Your task to perform on an android device: change timer sound Image 0: 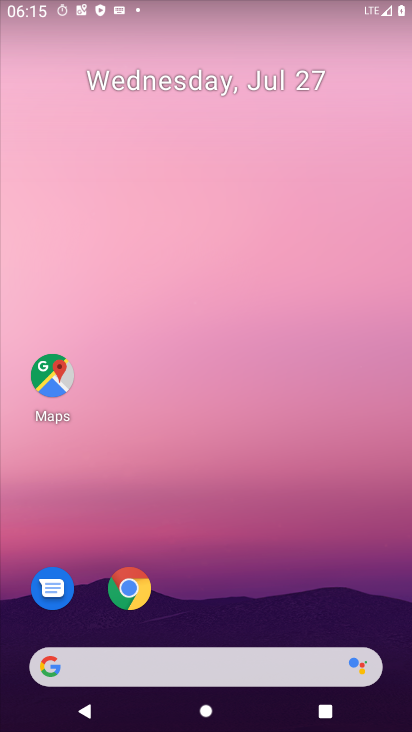
Step 0: drag from (217, 665) to (263, 47)
Your task to perform on an android device: change timer sound Image 1: 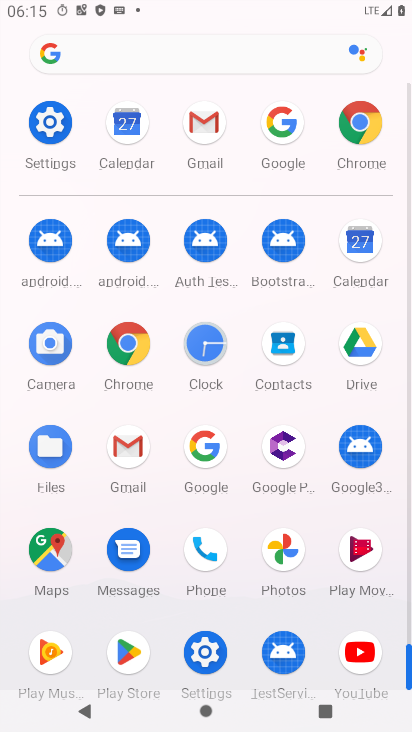
Step 1: click (214, 343)
Your task to perform on an android device: change timer sound Image 2: 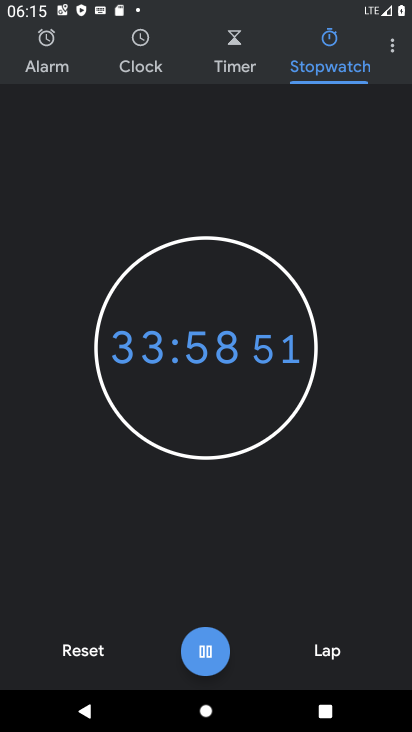
Step 2: click (390, 47)
Your task to perform on an android device: change timer sound Image 3: 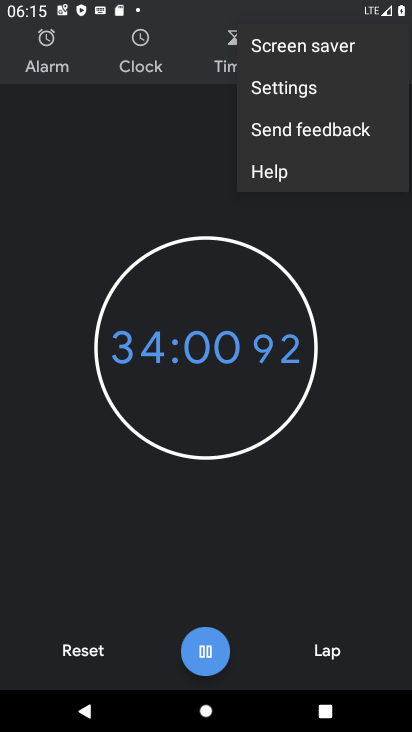
Step 3: click (310, 90)
Your task to perform on an android device: change timer sound Image 4: 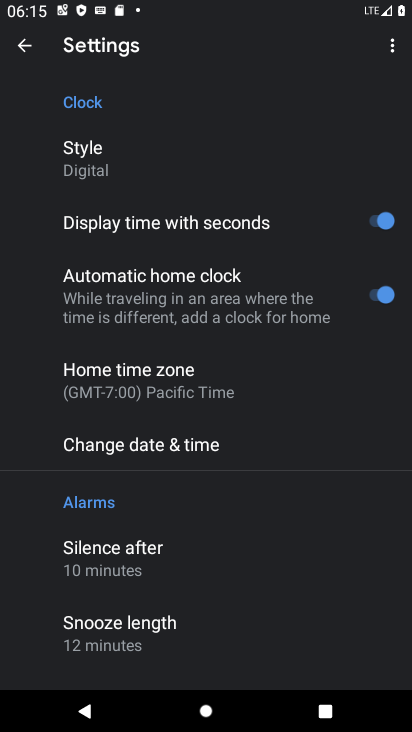
Step 4: drag from (146, 636) to (191, 104)
Your task to perform on an android device: change timer sound Image 5: 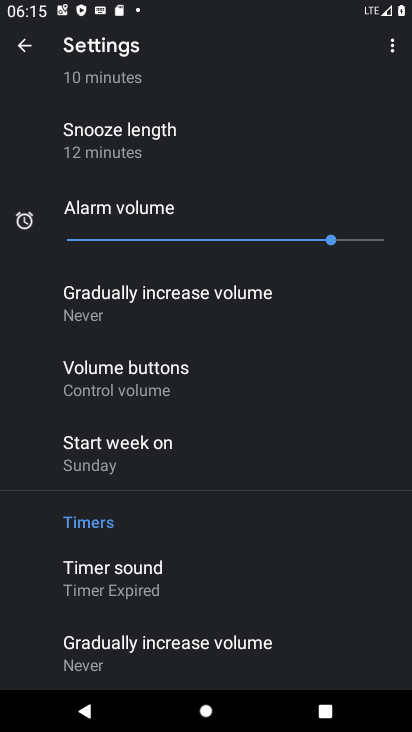
Step 5: click (160, 582)
Your task to perform on an android device: change timer sound Image 6: 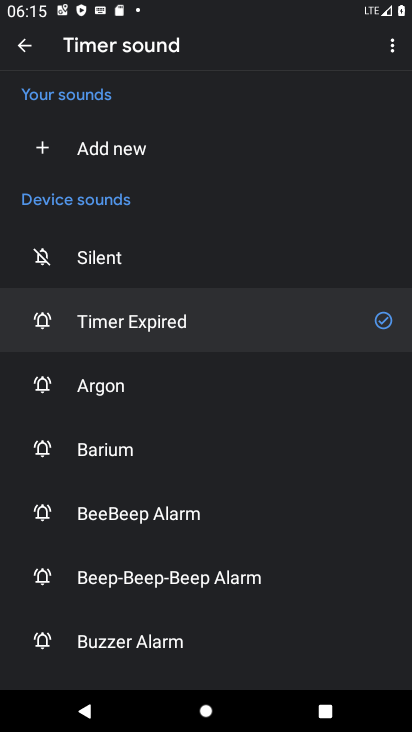
Step 6: click (277, 378)
Your task to perform on an android device: change timer sound Image 7: 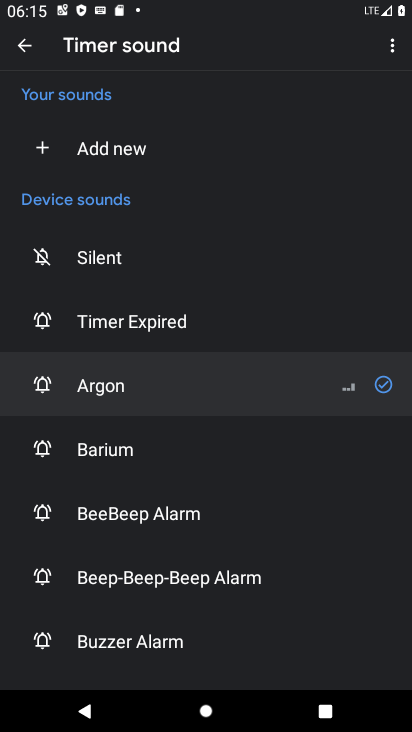
Step 7: task complete